Your task to perform on an android device: turn pop-ups on in chrome Image 0: 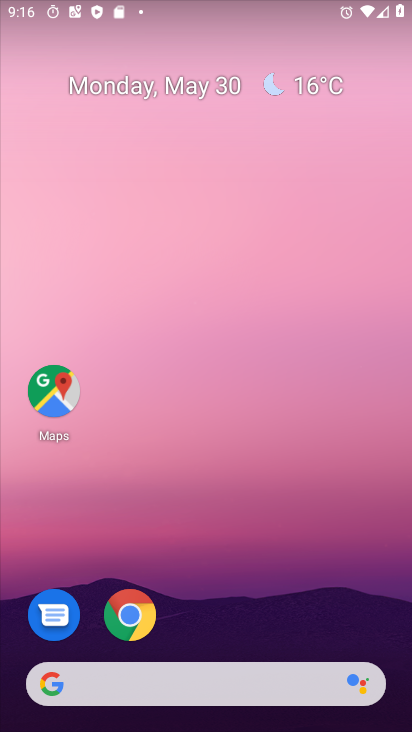
Step 0: drag from (288, 611) to (307, 12)
Your task to perform on an android device: turn pop-ups on in chrome Image 1: 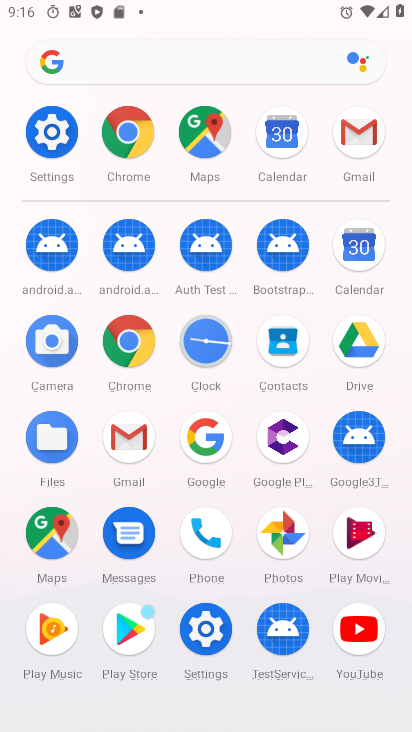
Step 1: click (128, 146)
Your task to perform on an android device: turn pop-ups on in chrome Image 2: 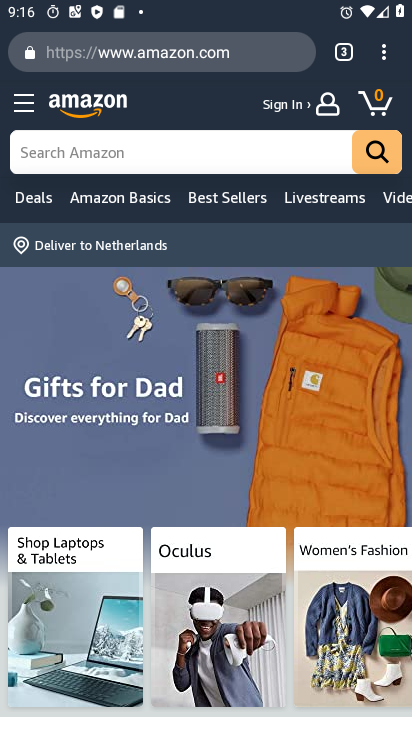
Step 2: drag from (380, 53) to (219, 610)
Your task to perform on an android device: turn pop-ups on in chrome Image 3: 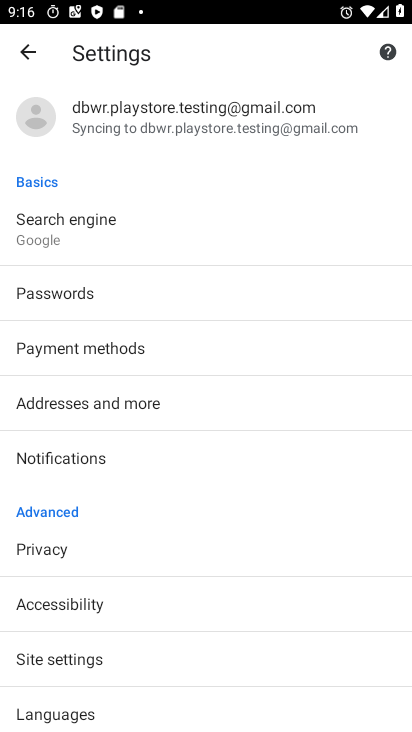
Step 3: drag from (215, 664) to (325, 201)
Your task to perform on an android device: turn pop-ups on in chrome Image 4: 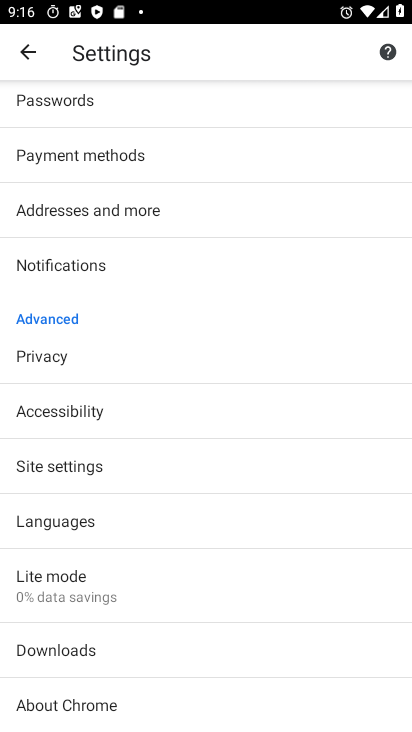
Step 4: click (44, 462)
Your task to perform on an android device: turn pop-ups on in chrome Image 5: 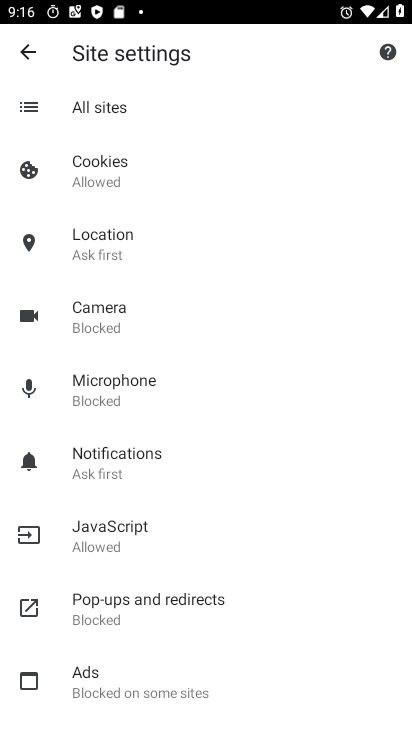
Step 5: click (89, 609)
Your task to perform on an android device: turn pop-ups on in chrome Image 6: 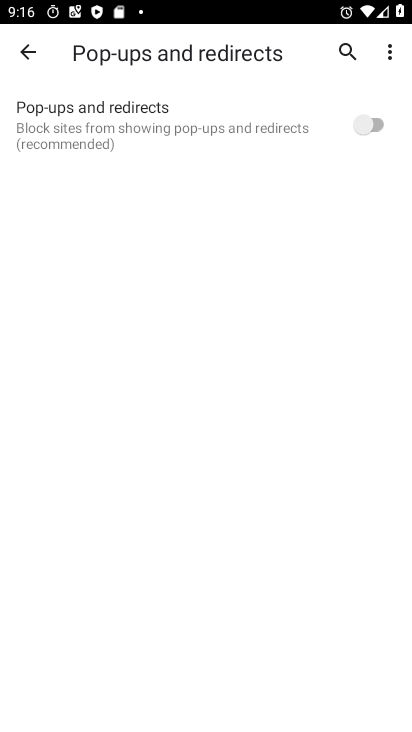
Step 6: click (372, 125)
Your task to perform on an android device: turn pop-ups on in chrome Image 7: 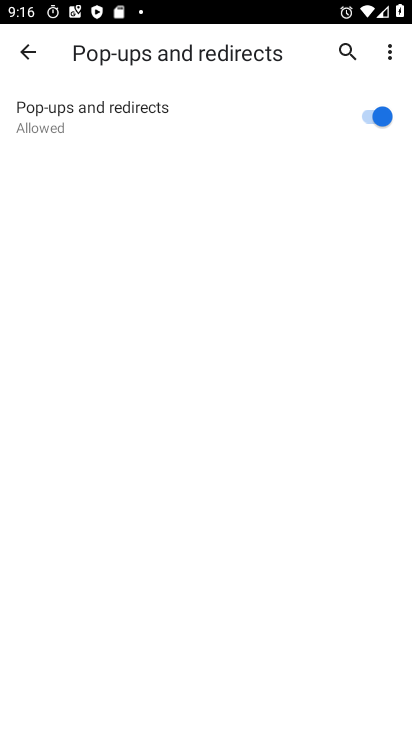
Step 7: task complete